Your task to perform on an android device: change the clock style Image 0: 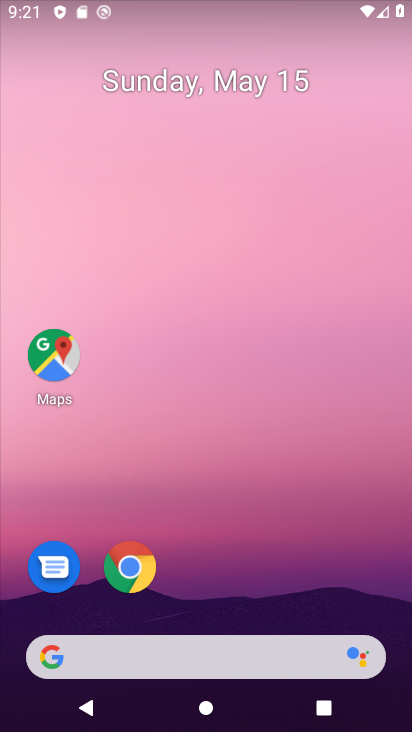
Step 0: drag from (327, 595) to (308, 84)
Your task to perform on an android device: change the clock style Image 1: 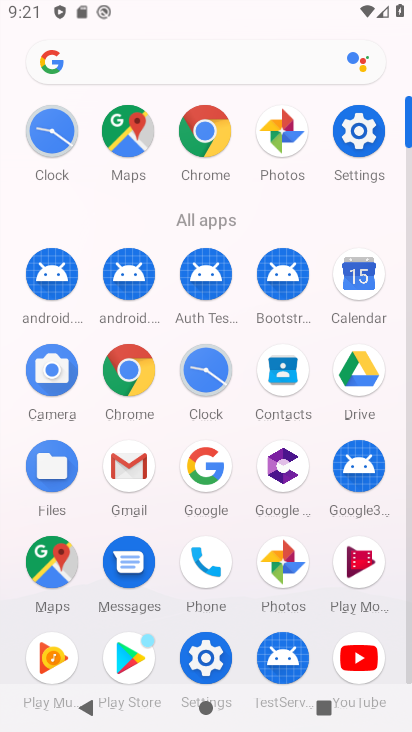
Step 1: click (207, 389)
Your task to perform on an android device: change the clock style Image 2: 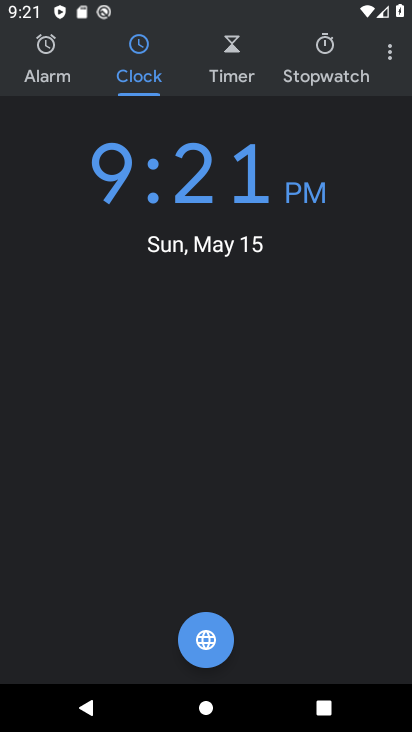
Step 2: click (388, 56)
Your task to perform on an android device: change the clock style Image 3: 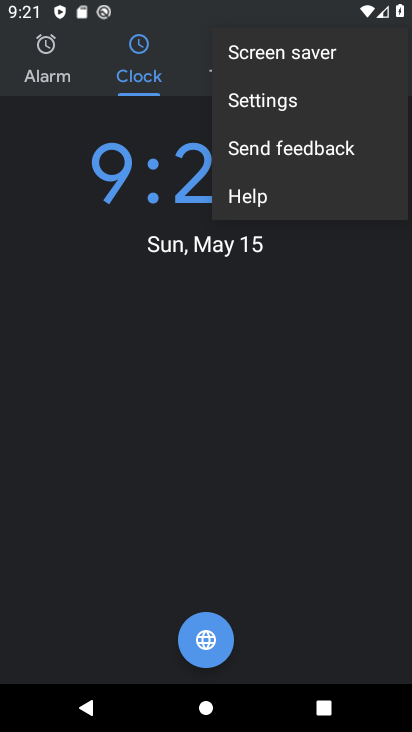
Step 3: click (296, 97)
Your task to perform on an android device: change the clock style Image 4: 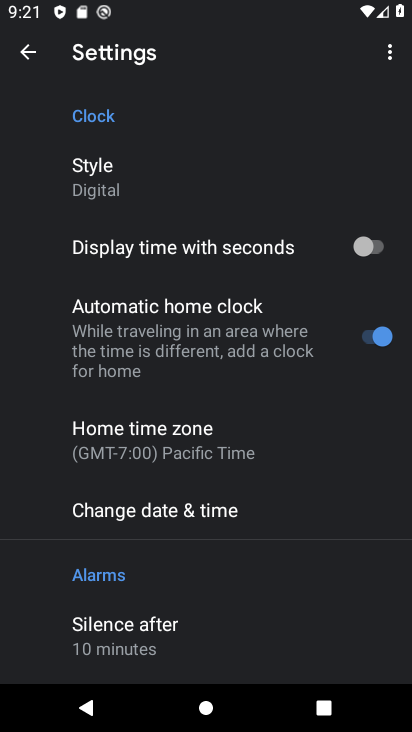
Step 4: click (245, 174)
Your task to perform on an android device: change the clock style Image 5: 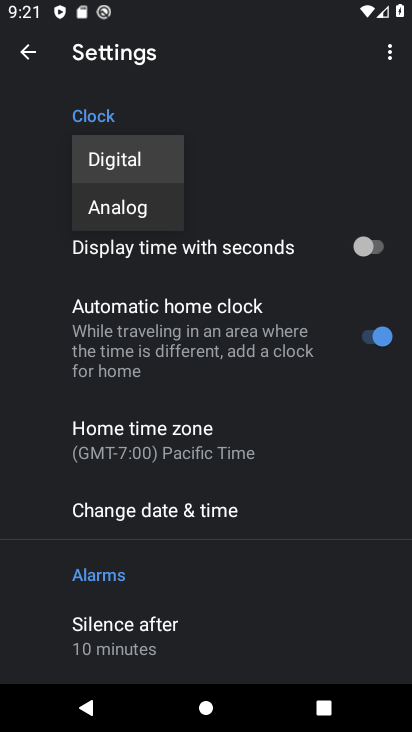
Step 5: click (121, 213)
Your task to perform on an android device: change the clock style Image 6: 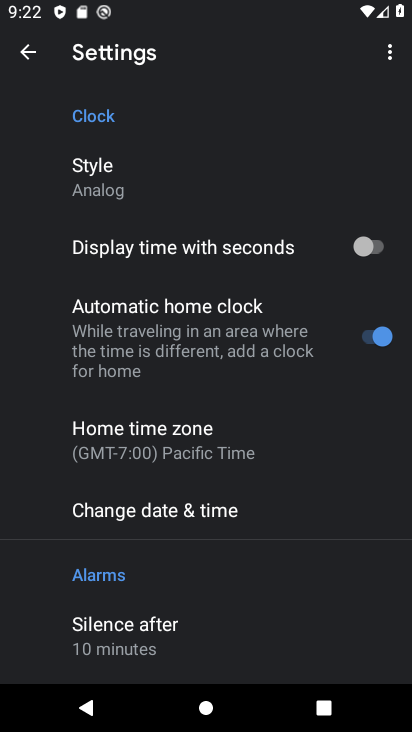
Step 6: task complete